Your task to perform on an android device: toggle translation in the chrome app Image 0: 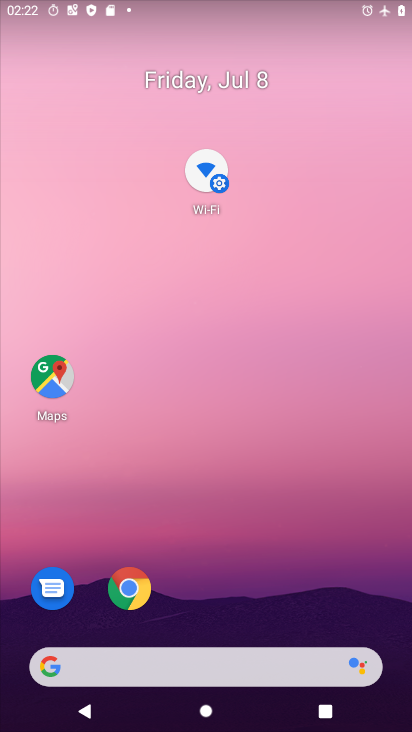
Step 0: drag from (187, 589) to (199, 131)
Your task to perform on an android device: toggle translation in the chrome app Image 1: 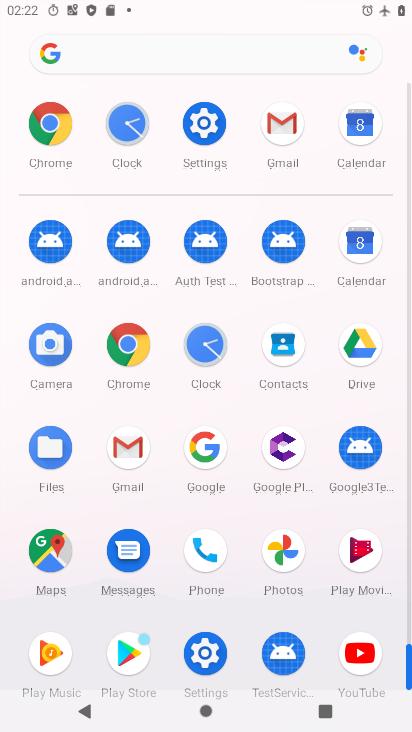
Step 1: click (114, 333)
Your task to perform on an android device: toggle translation in the chrome app Image 2: 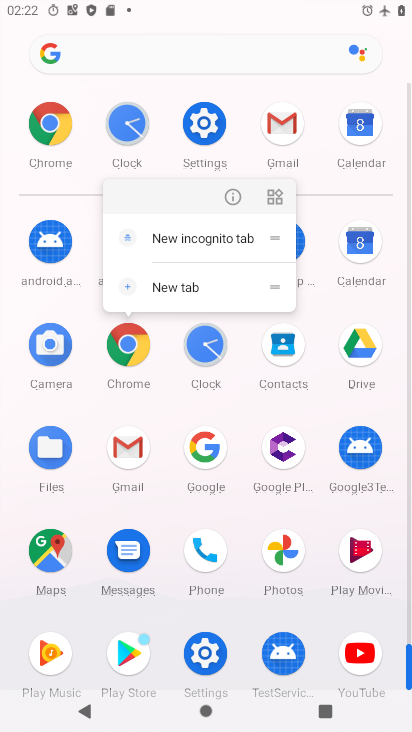
Step 2: click (218, 196)
Your task to perform on an android device: toggle translation in the chrome app Image 3: 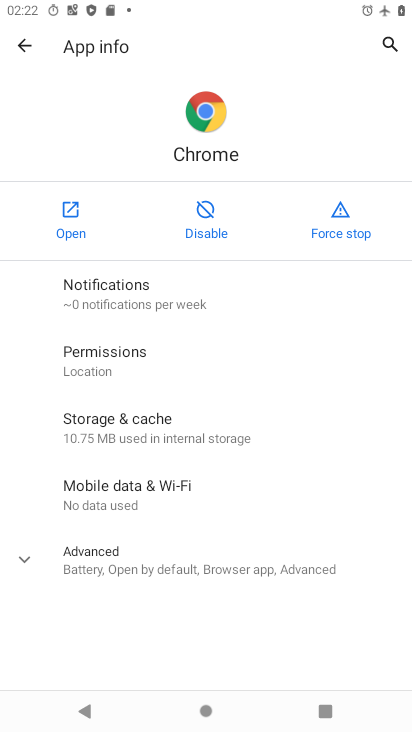
Step 3: click (61, 212)
Your task to perform on an android device: toggle translation in the chrome app Image 4: 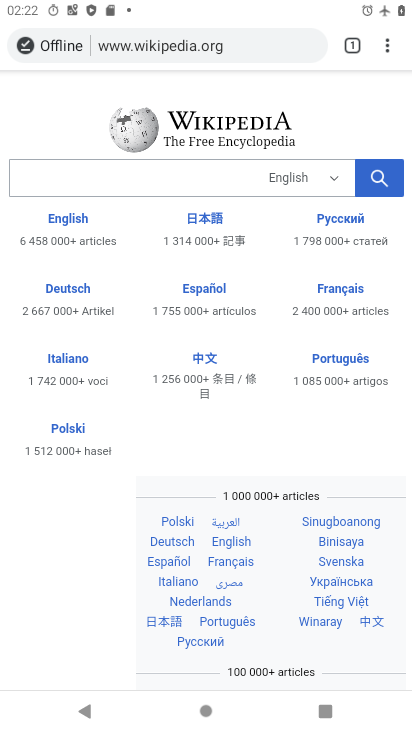
Step 4: click (390, 52)
Your task to perform on an android device: toggle translation in the chrome app Image 5: 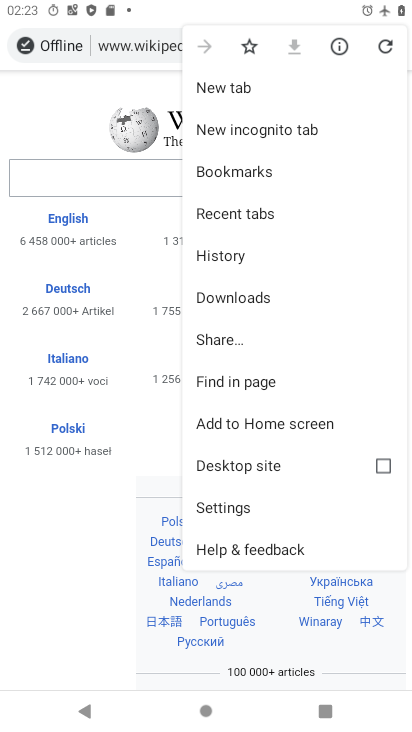
Step 5: click (229, 503)
Your task to perform on an android device: toggle translation in the chrome app Image 6: 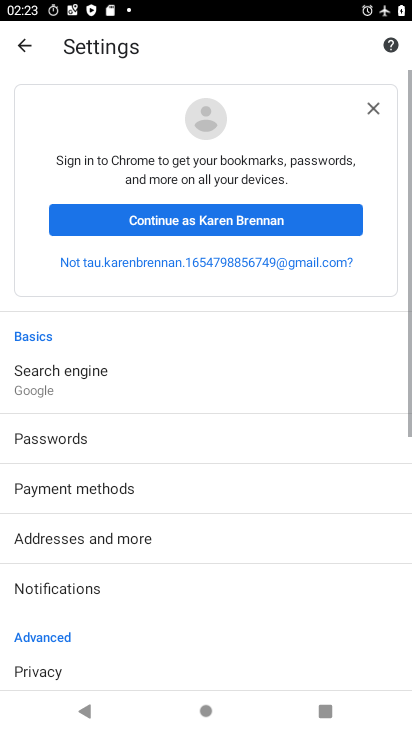
Step 6: drag from (229, 503) to (204, 134)
Your task to perform on an android device: toggle translation in the chrome app Image 7: 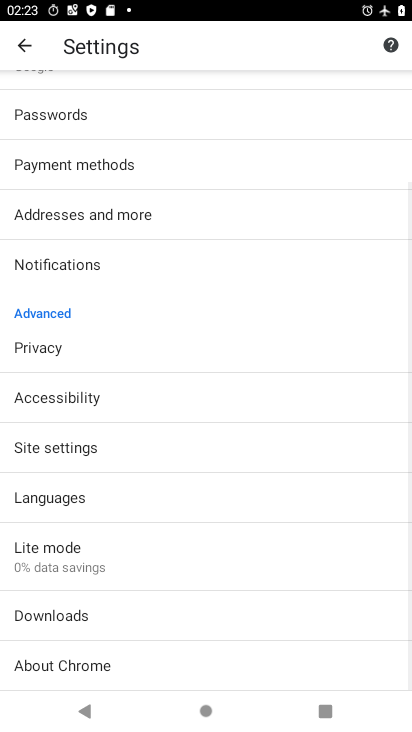
Step 7: drag from (162, 620) to (170, 216)
Your task to perform on an android device: toggle translation in the chrome app Image 8: 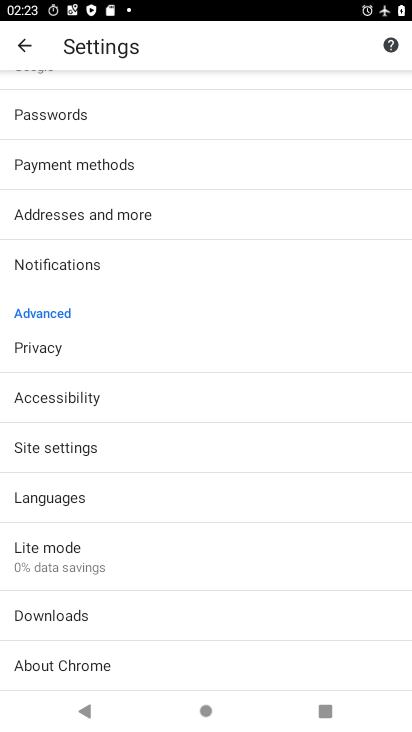
Step 8: click (50, 506)
Your task to perform on an android device: toggle translation in the chrome app Image 9: 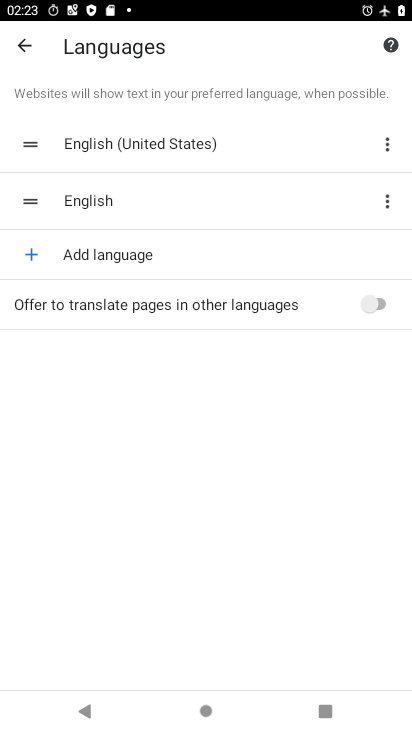
Step 9: click (320, 301)
Your task to perform on an android device: toggle translation in the chrome app Image 10: 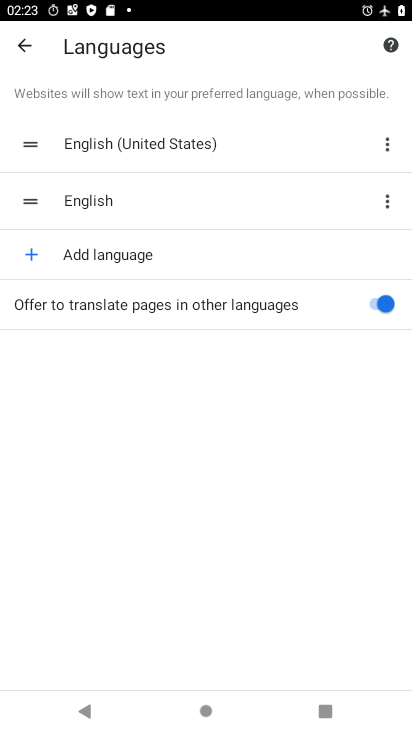
Step 10: task complete